Your task to perform on an android device: Set the phone to "Do not disturb". Image 0: 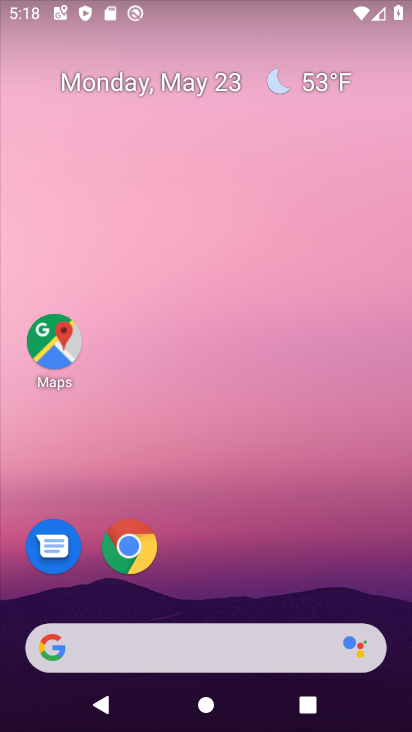
Step 0: drag from (253, 561) to (333, 3)
Your task to perform on an android device: Set the phone to "Do not disturb". Image 1: 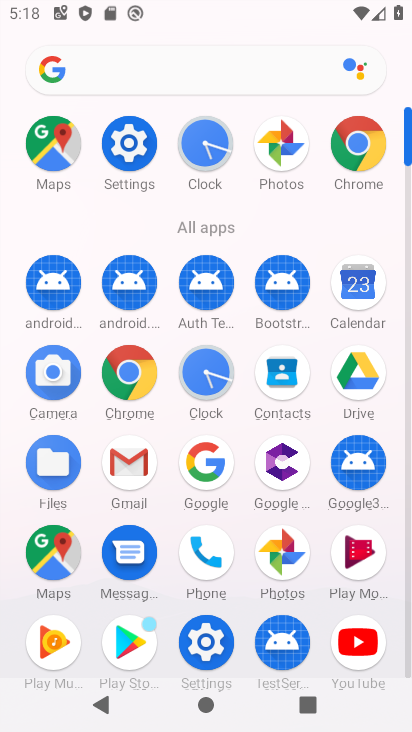
Step 1: click (142, 146)
Your task to perform on an android device: Set the phone to "Do not disturb". Image 2: 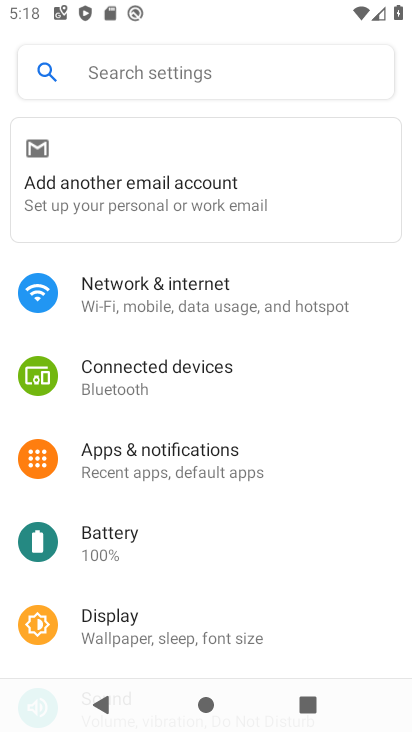
Step 2: drag from (257, 568) to (265, 217)
Your task to perform on an android device: Set the phone to "Do not disturb". Image 3: 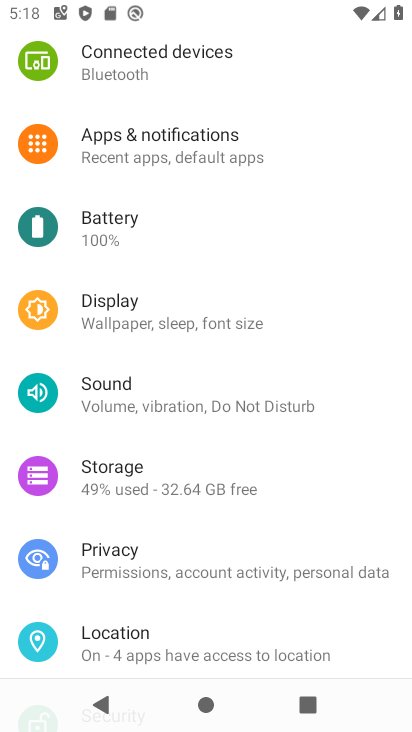
Step 3: click (200, 399)
Your task to perform on an android device: Set the phone to "Do not disturb". Image 4: 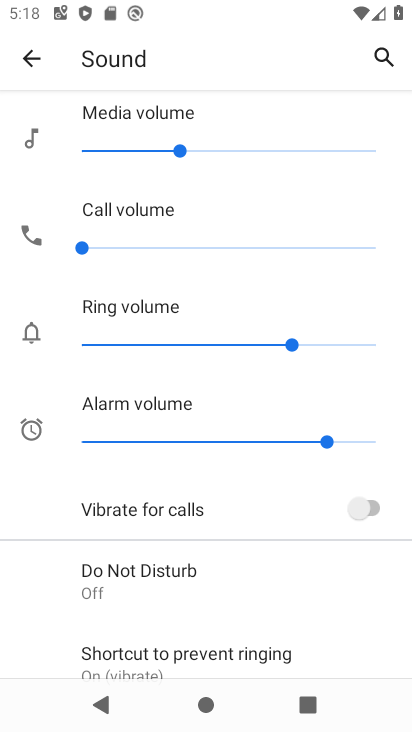
Step 4: click (190, 575)
Your task to perform on an android device: Set the phone to "Do not disturb". Image 5: 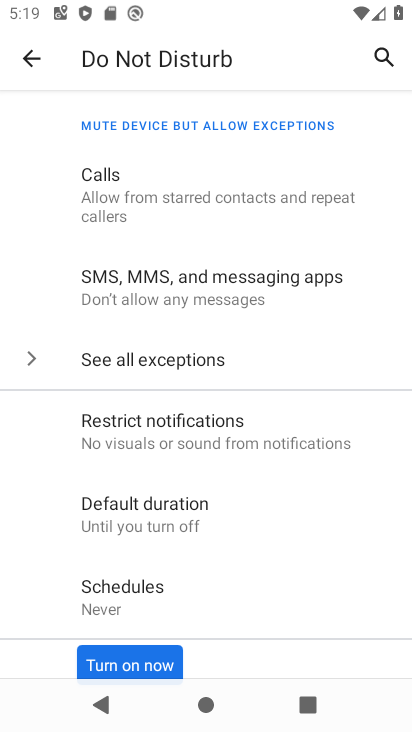
Step 5: click (149, 658)
Your task to perform on an android device: Set the phone to "Do not disturb". Image 6: 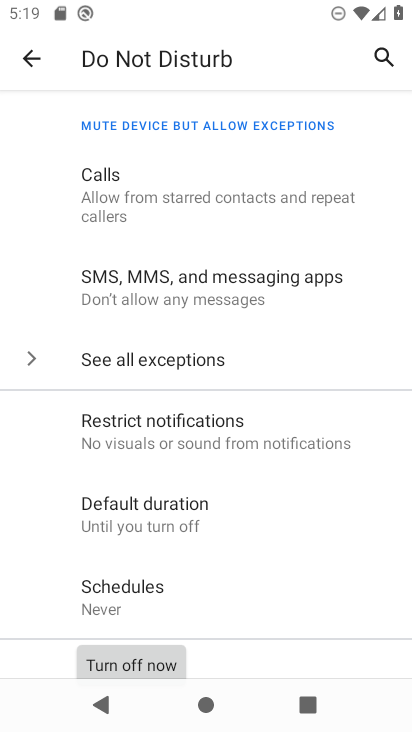
Step 6: task complete